Your task to perform on an android device: Go to internet settings Image 0: 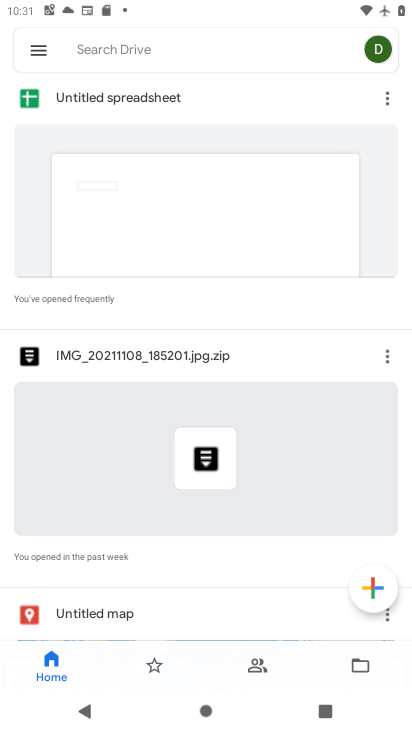
Step 0: press home button
Your task to perform on an android device: Go to internet settings Image 1: 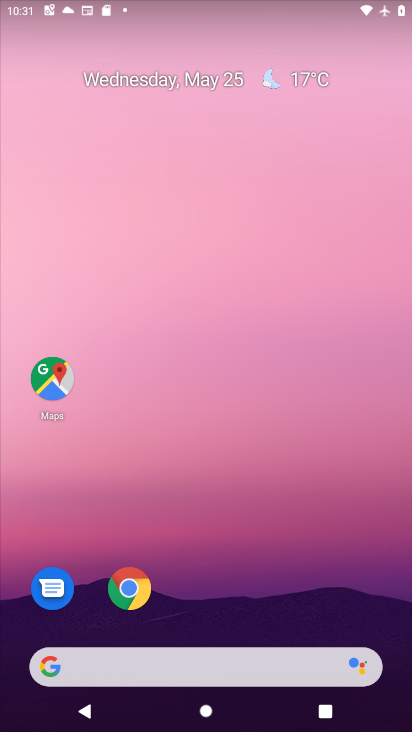
Step 1: drag from (358, 596) to (361, 182)
Your task to perform on an android device: Go to internet settings Image 2: 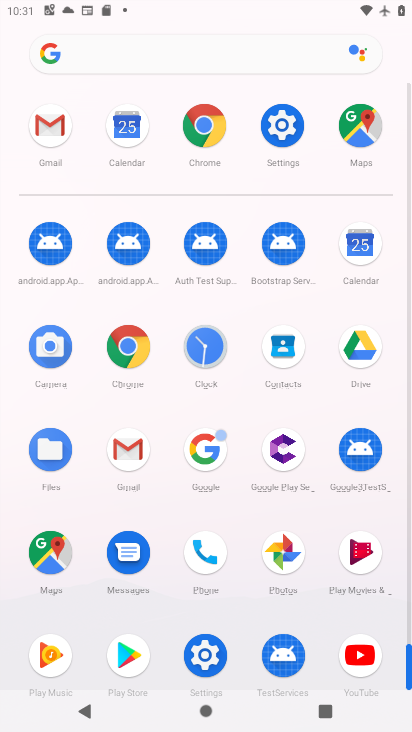
Step 2: click (286, 141)
Your task to perform on an android device: Go to internet settings Image 3: 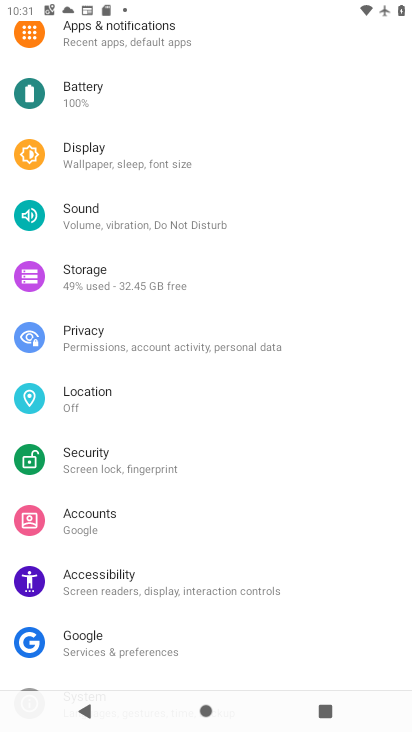
Step 3: drag from (322, 264) to (317, 379)
Your task to perform on an android device: Go to internet settings Image 4: 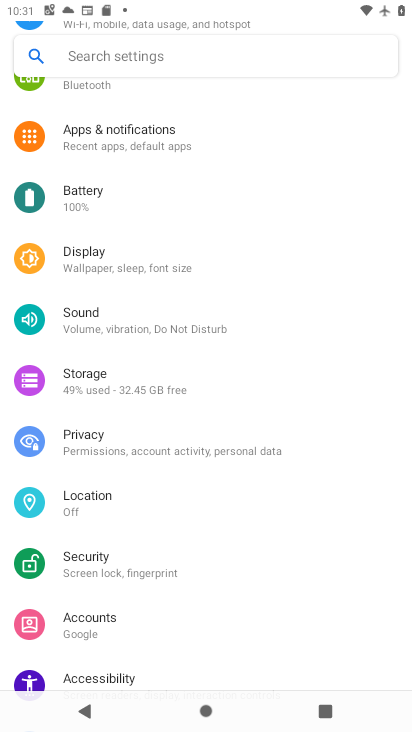
Step 4: drag from (315, 217) to (310, 329)
Your task to perform on an android device: Go to internet settings Image 5: 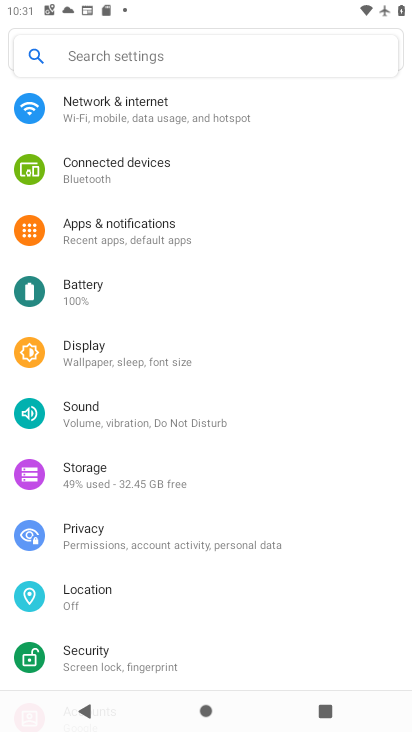
Step 5: drag from (316, 212) to (324, 330)
Your task to perform on an android device: Go to internet settings Image 6: 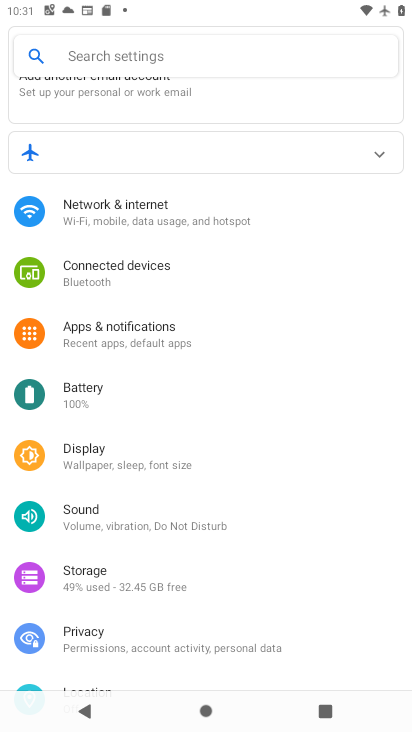
Step 6: drag from (320, 213) to (322, 334)
Your task to perform on an android device: Go to internet settings Image 7: 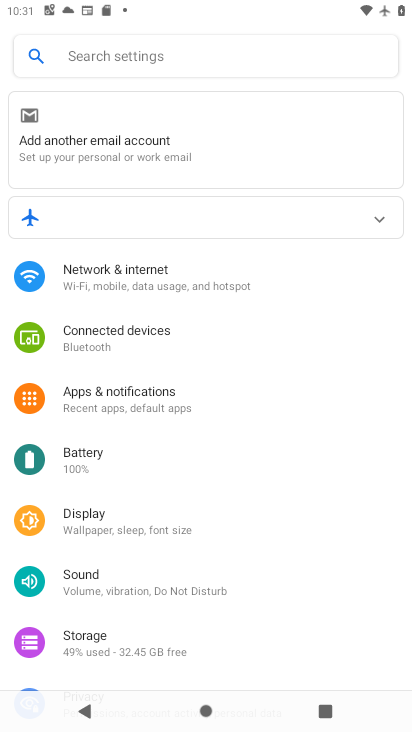
Step 7: drag from (320, 165) to (311, 315)
Your task to perform on an android device: Go to internet settings Image 8: 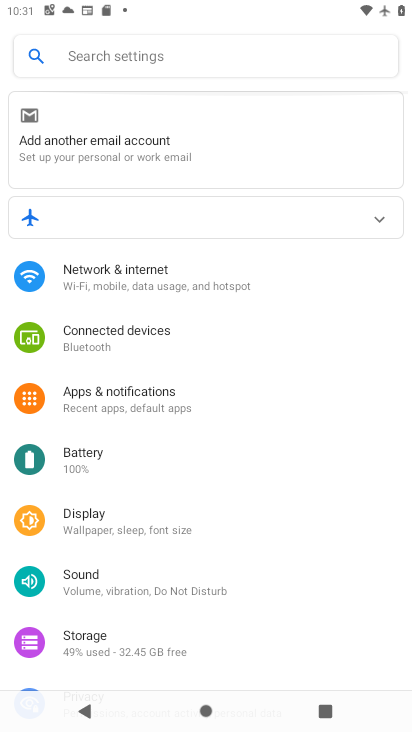
Step 8: drag from (323, 372) to (323, 277)
Your task to perform on an android device: Go to internet settings Image 9: 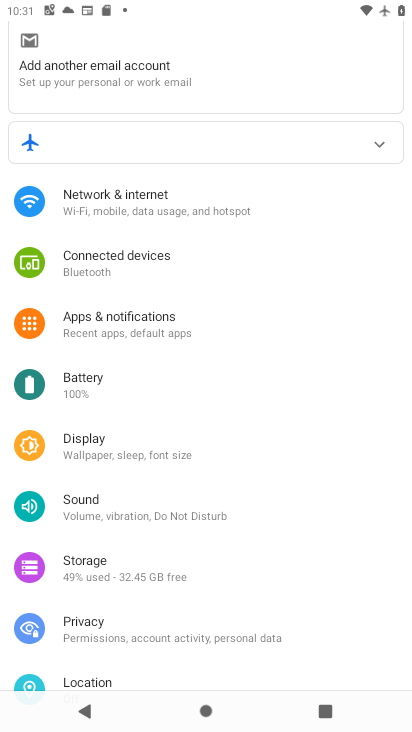
Step 9: drag from (312, 399) to (313, 316)
Your task to perform on an android device: Go to internet settings Image 10: 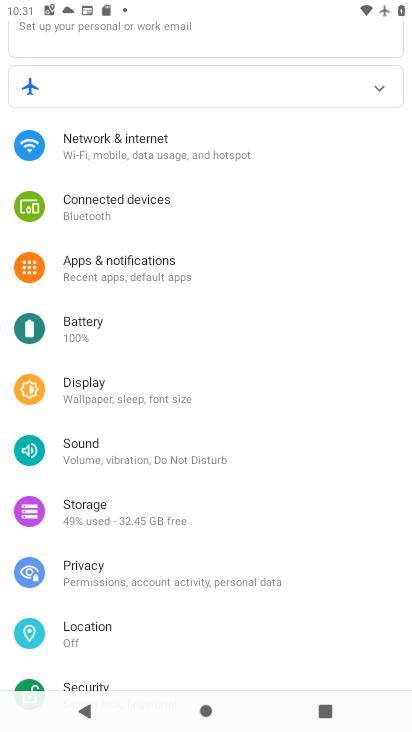
Step 10: drag from (313, 421) to (320, 336)
Your task to perform on an android device: Go to internet settings Image 11: 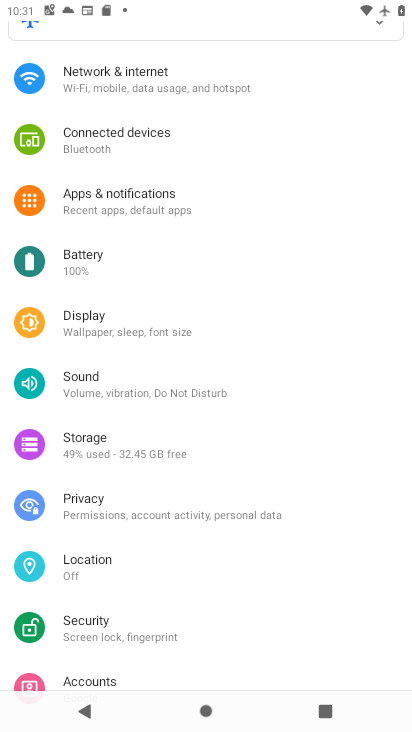
Step 11: drag from (304, 445) to (300, 353)
Your task to perform on an android device: Go to internet settings Image 12: 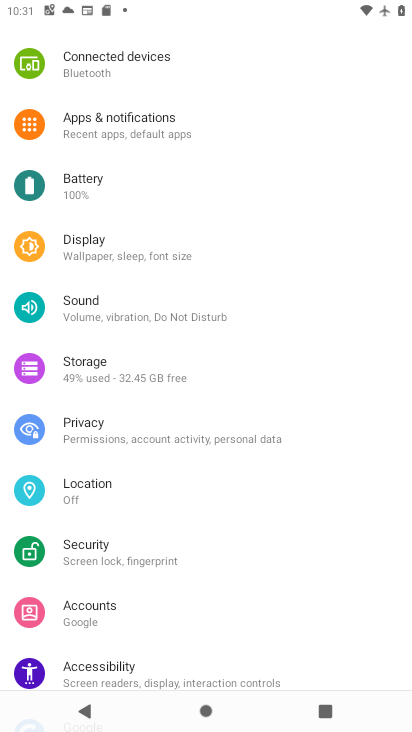
Step 12: drag from (303, 478) to (311, 382)
Your task to perform on an android device: Go to internet settings Image 13: 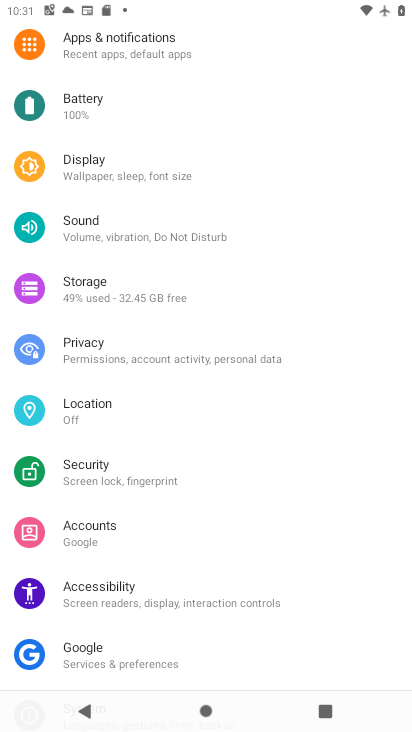
Step 13: drag from (314, 467) to (320, 374)
Your task to perform on an android device: Go to internet settings Image 14: 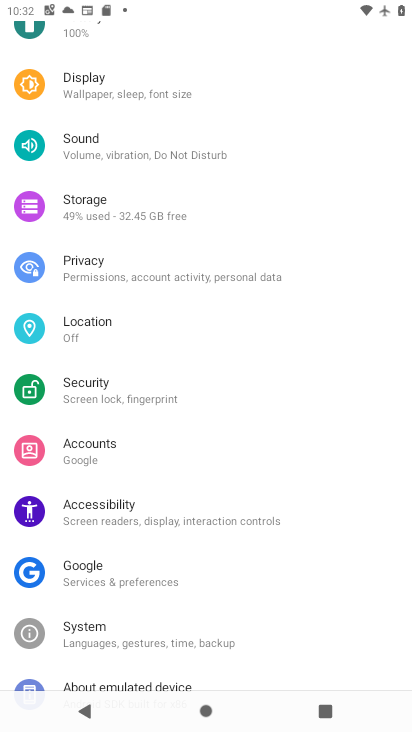
Step 14: drag from (320, 476) to (311, 369)
Your task to perform on an android device: Go to internet settings Image 15: 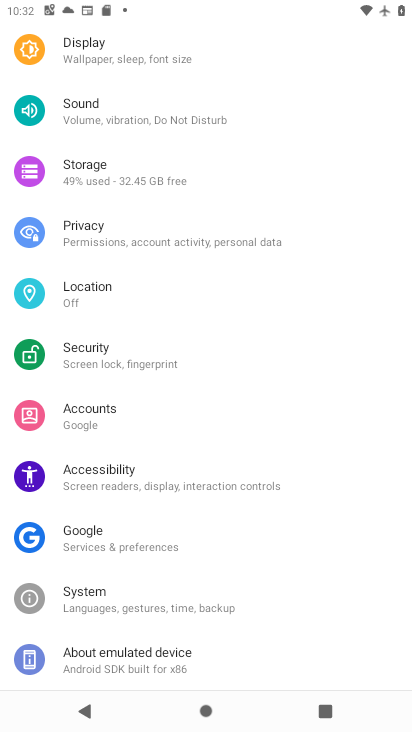
Step 15: drag from (319, 516) to (311, 369)
Your task to perform on an android device: Go to internet settings Image 16: 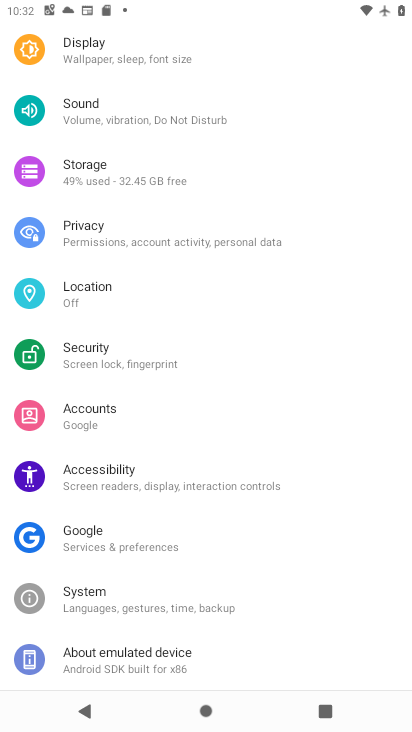
Step 16: drag from (305, 292) to (293, 383)
Your task to perform on an android device: Go to internet settings Image 17: 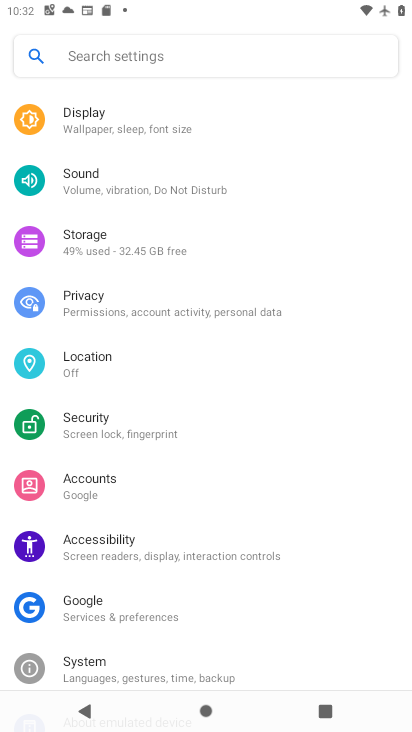
Step 17: drag from (292, 270) to (290, 370)
Your task to perform on an android device: Go to internet settings Image 18: 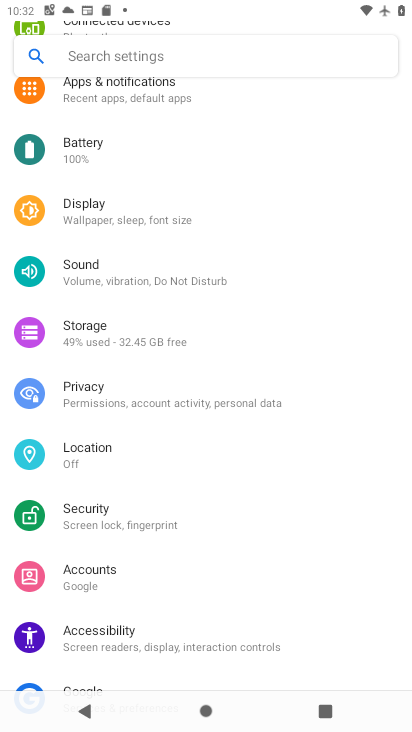
Step 18: drag from (291, 219) to (295, 357)
Your task to perform on an android device: Go to internet settings Image 19: 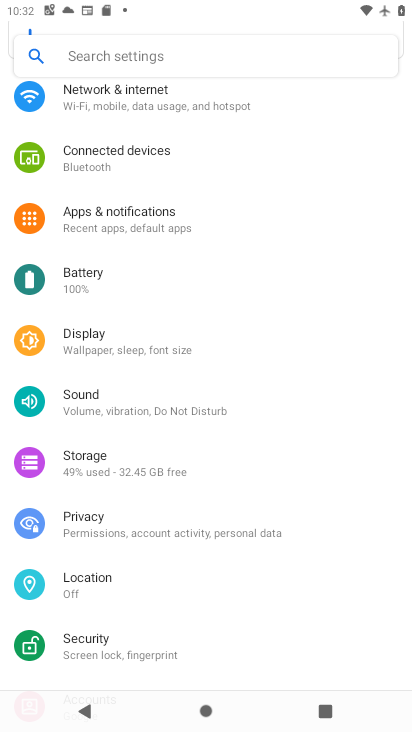
Step 19: drag from (287, 197) to (276, 326)
Your task to perform on an android device: Go to internet settings Image 20: 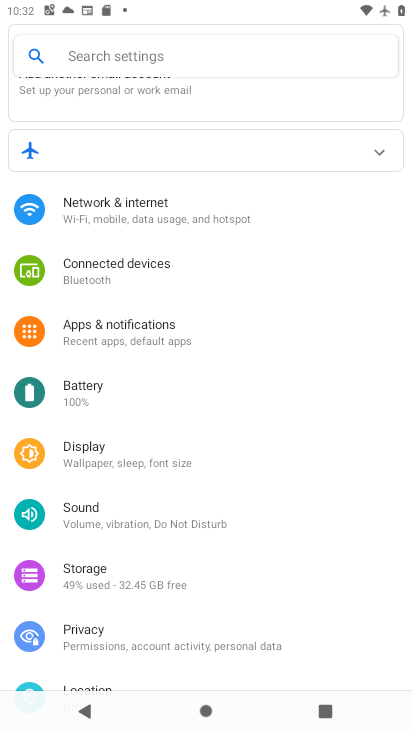
Step 20: drag from (295, 192) to (280, 344)
Your task to perform on an android device: Go to internet settings Image 21: 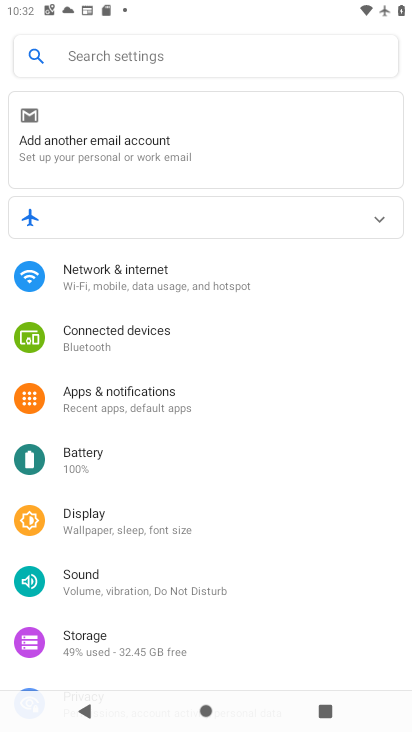
Step 21: drag from (265, 127) to (284, 349)
Your task to perform on an android device: Go to internet settings Image 22: 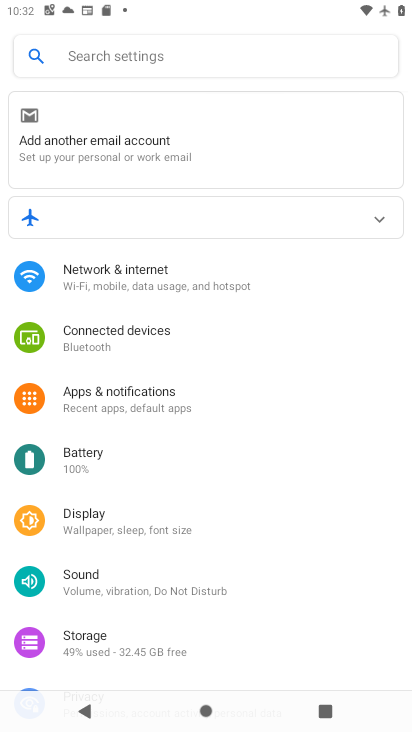
Step 22: click (182, 285)
Your task to perform on an android device: Go to internet settings Image 23: 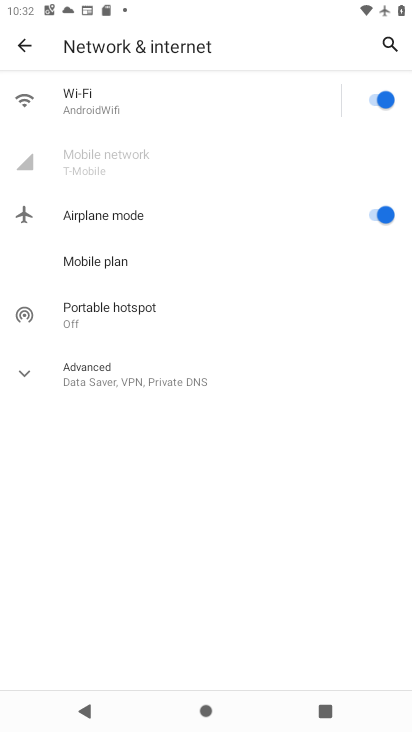
Step 23: task complete